Your task to perform on an android device: When is my next meeting? Image 0: 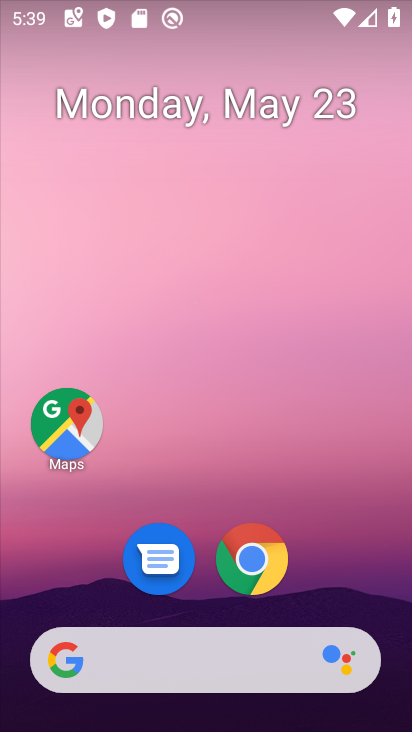
Step 0: drag from (379, 657) to (327, 55)
Your task to perform on an android device: When is my next meeting? Image 1: 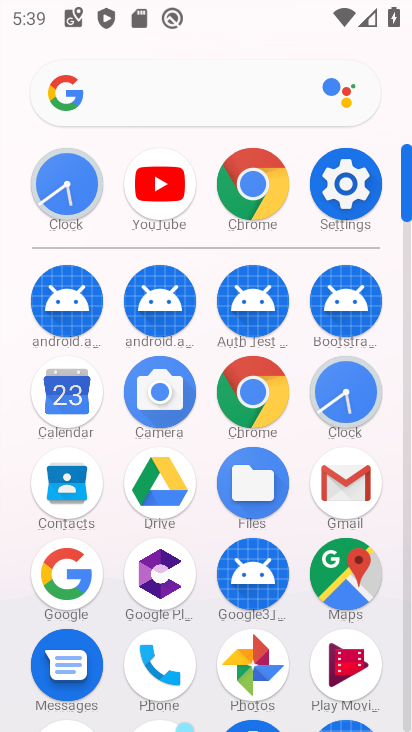
Step 1: click (39, 387)
Your task to perform on an android device: When is my next meeting? Image 2: 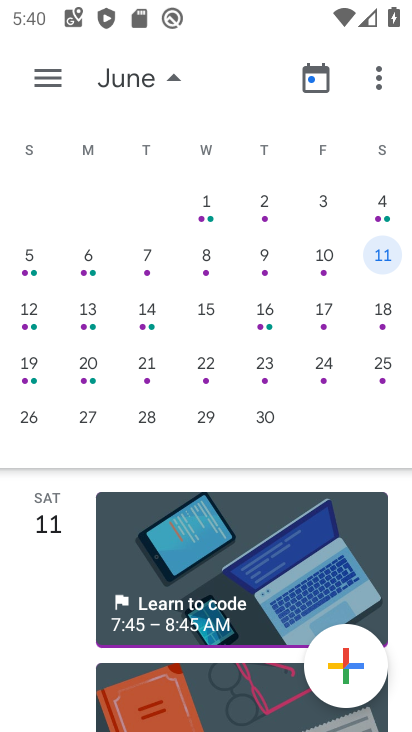
Step 2: drag from (91, 248) to (399, 269)
Your task to perform on an android device: When is my next meeting? Image 3: 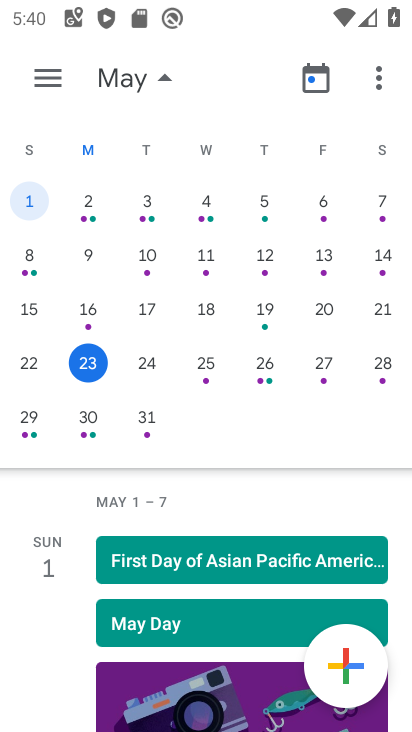
Step 3: click (160, 361)
Your task to perform on an android device: When is my next meeting? Image 4: 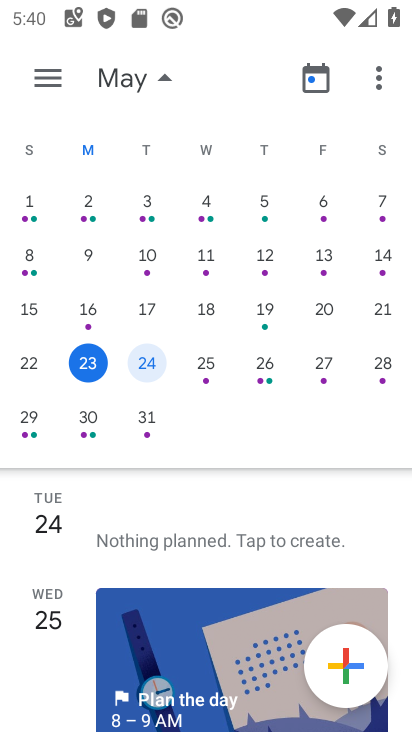
Step 4: task complete